Your task to perform on an android device: Open battery settings Image 0: 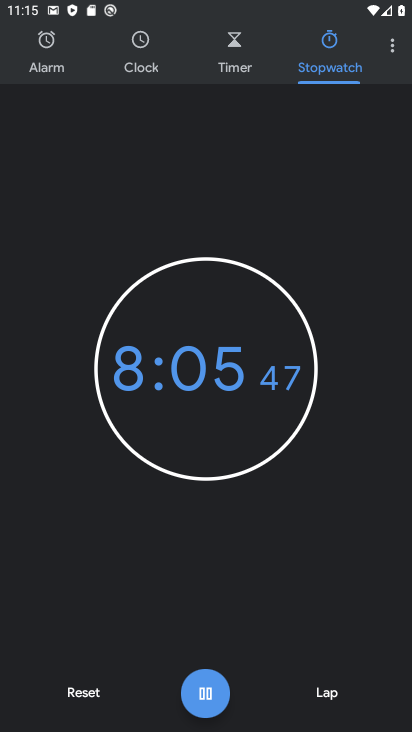
Step 0: press home button
Your task to perform on an android device: Open battery settings Image 1: 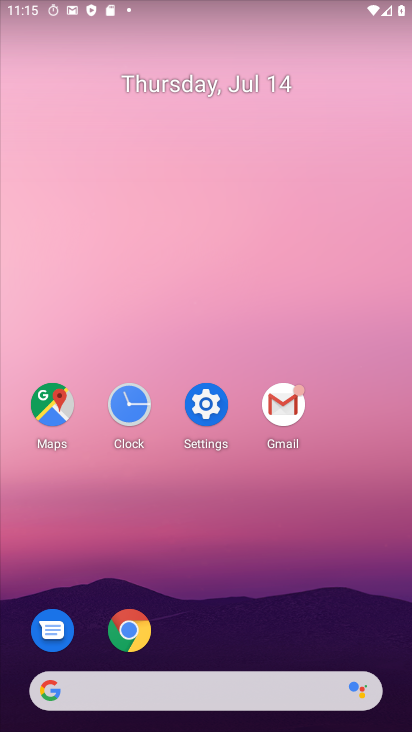
Step 1: click (216, 386)
Your task to perform on an android device: Open battery settings Image 2: 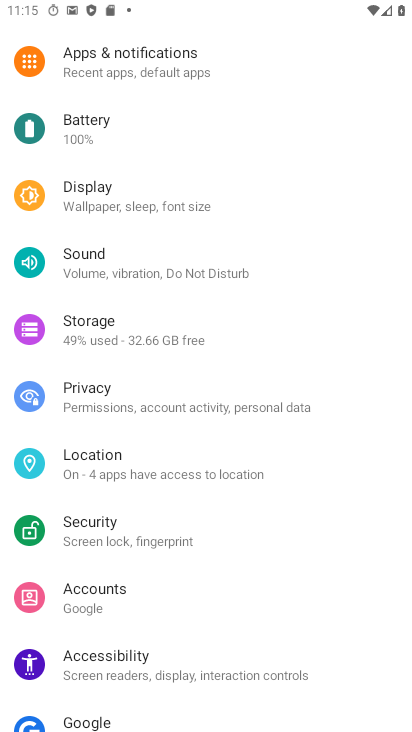
Step 2: click (98, 123)
Your task to perform on an android device: Open battery settings Image 3: 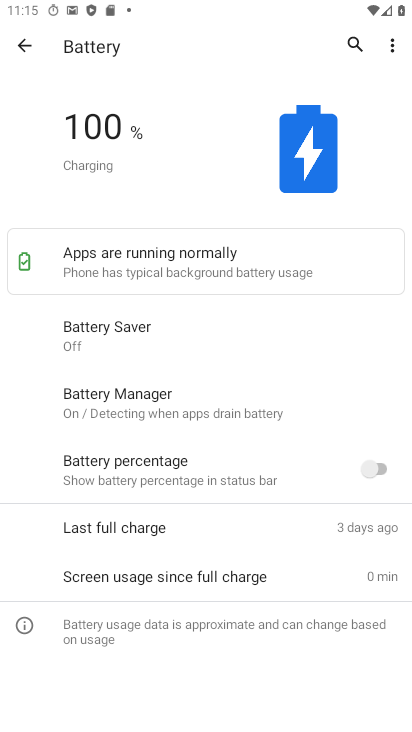
Step 3: task complete